Your task to perform on an android device: turn on bluetooth scan Image 0: 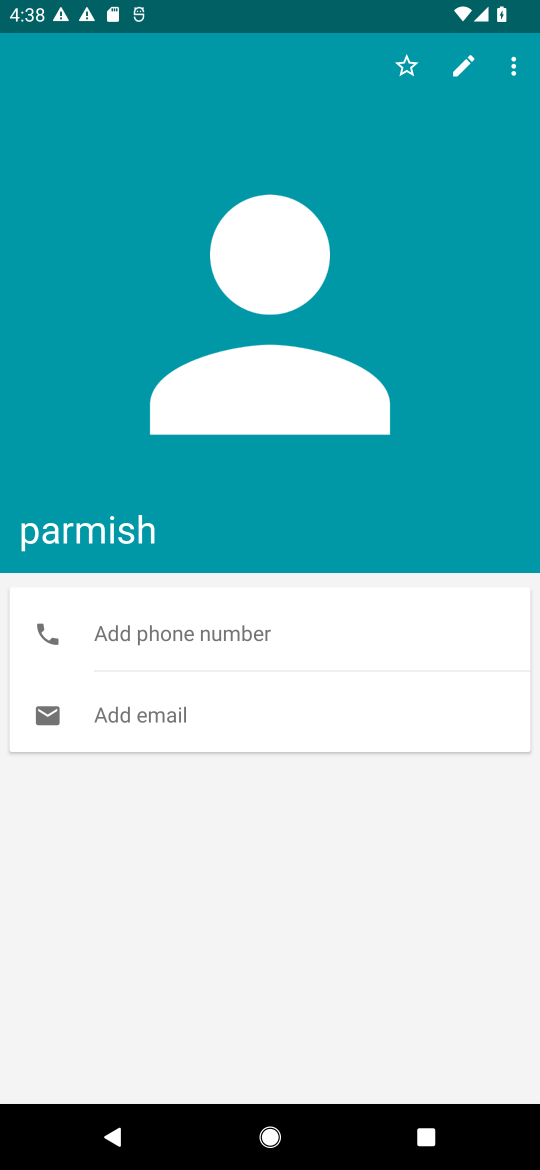
Step 0: press home button
Your task to perform on an android device: turn on bluetooth scan Image 1: 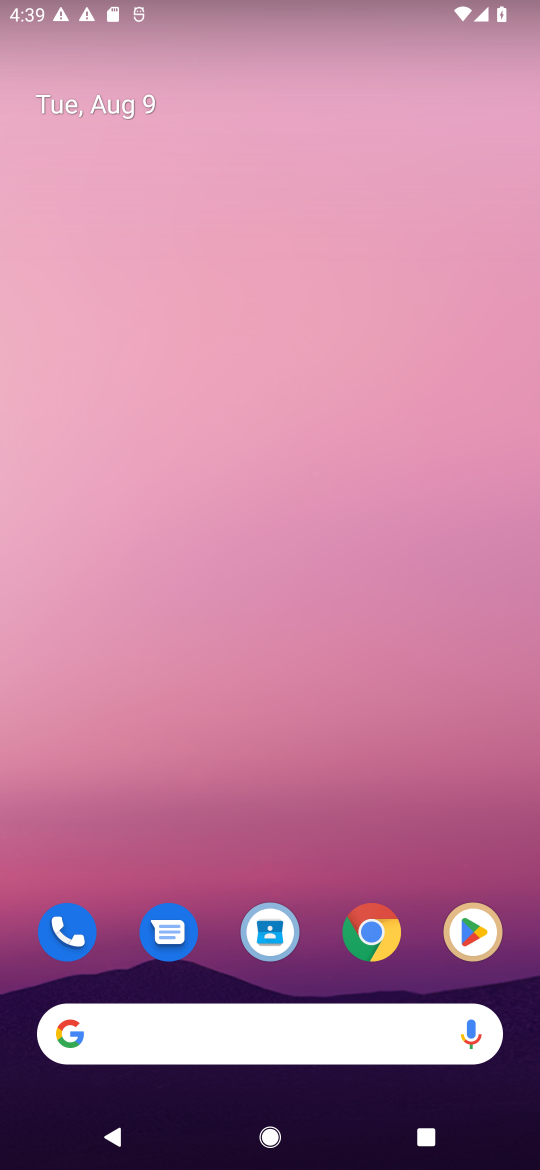
Step 1: drag from (186, 759) to (227, 57)
Your task to perform on an android device: turn on bluetooth scan Image 2: 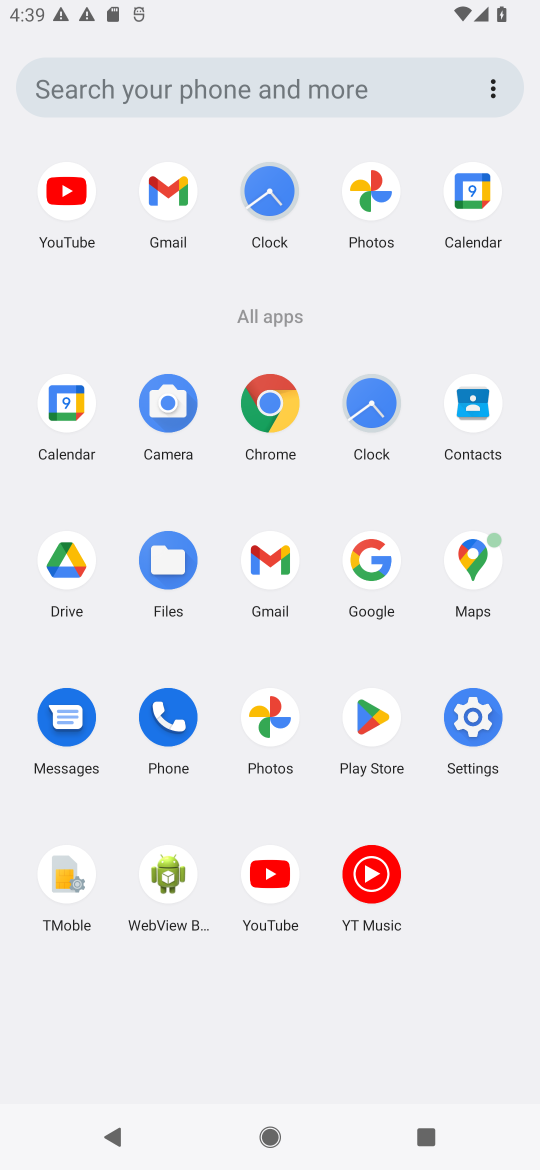
Step 2: click (474, 728)
Your task to perform on an android device: turn on bluetooth scan Image 3: 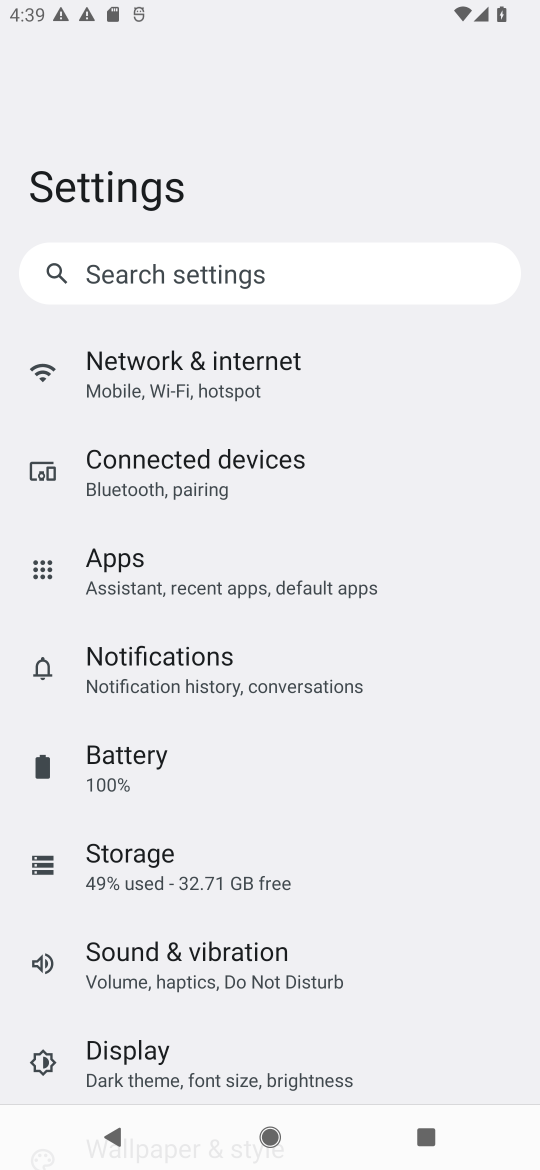
Step 3: drag from (195, 935) to (264, 89)
Your task to perform on an android device: turn on bluetooth scan Image 4: 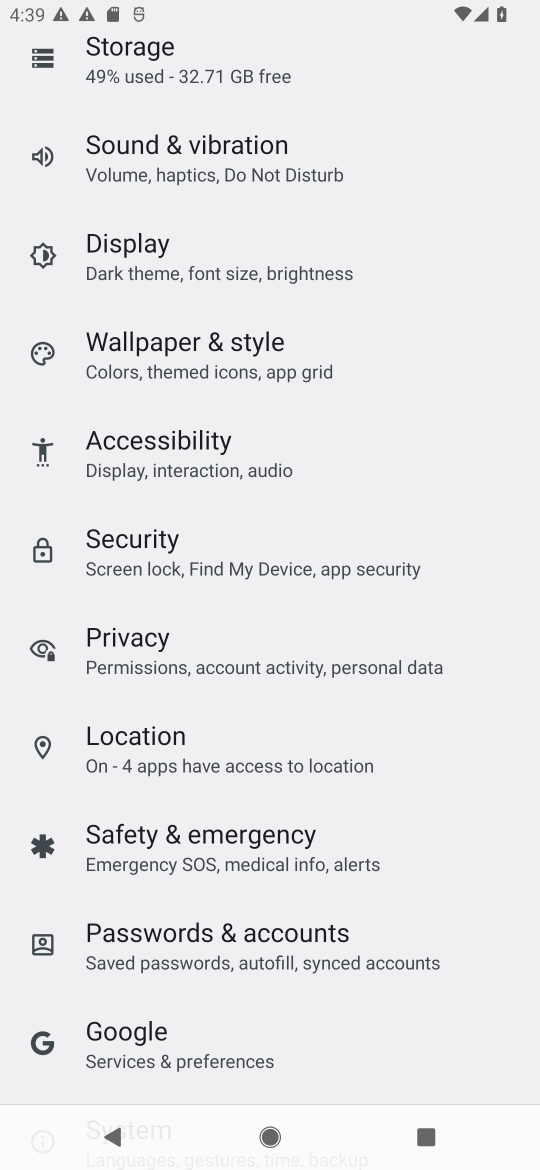
Step 4: drag from (255, 948) to (262, 382)
Your task to perform on an android device: turn on bluetooth scan Image 5: 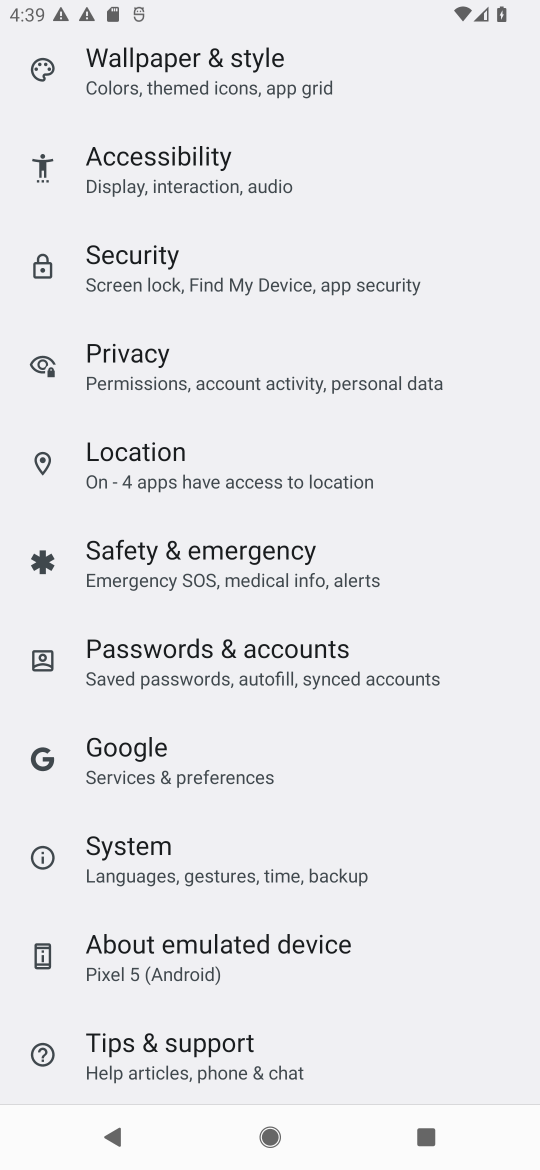
Step 5: click (188, 469)
Your task to perform on an android device: turn on bluetooth scan Image 6: 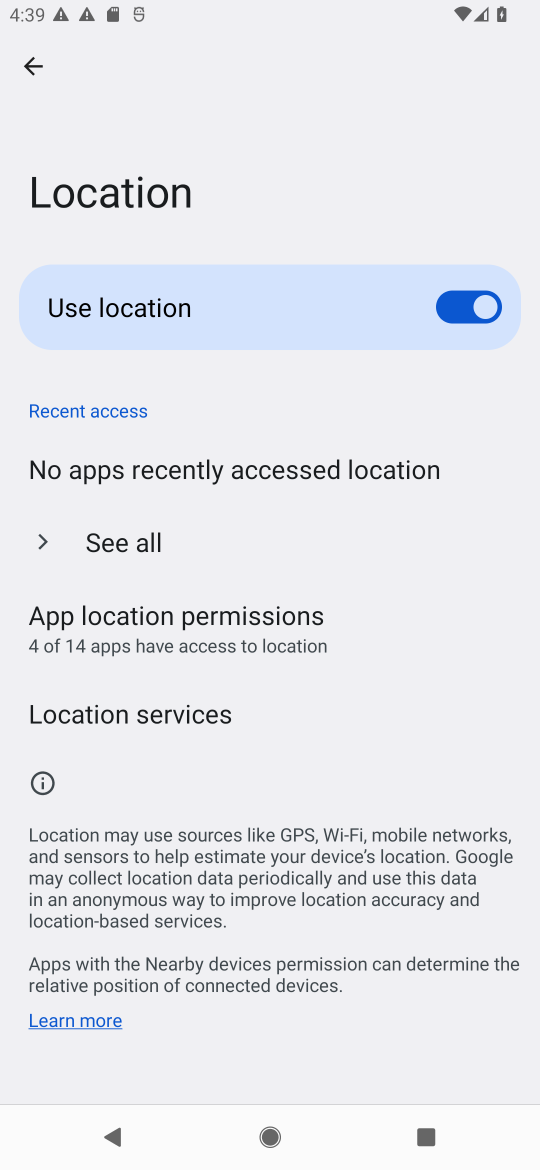
Step 6: click (186, 721)
Your task to perform on an android device: turn on bluetooth scan Image 7: 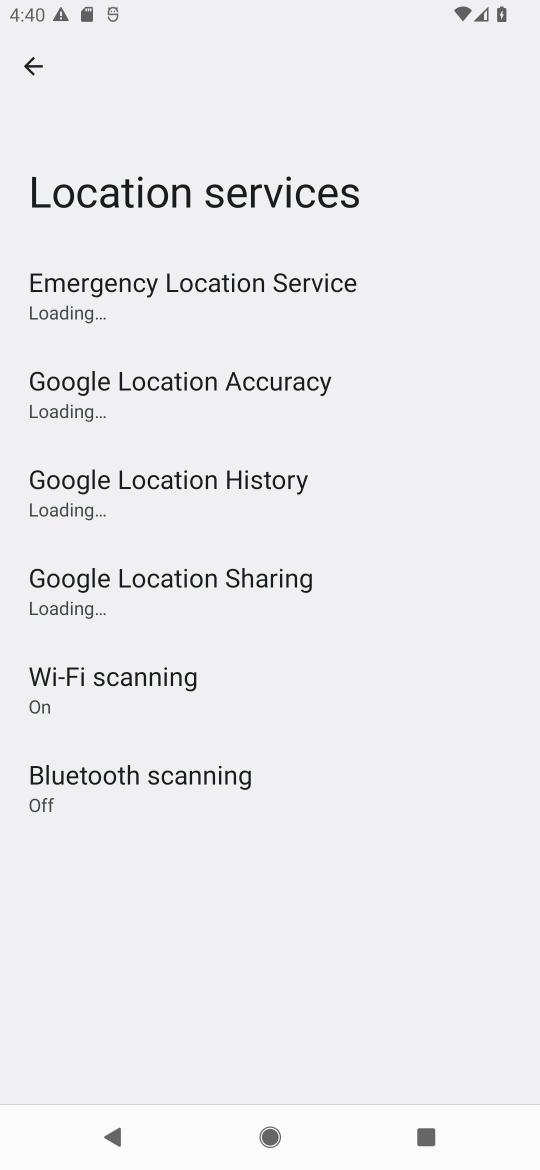
Step 7: click (184, 781)
Your task to perform on an android device: turn on bluetooth scan Image 8: 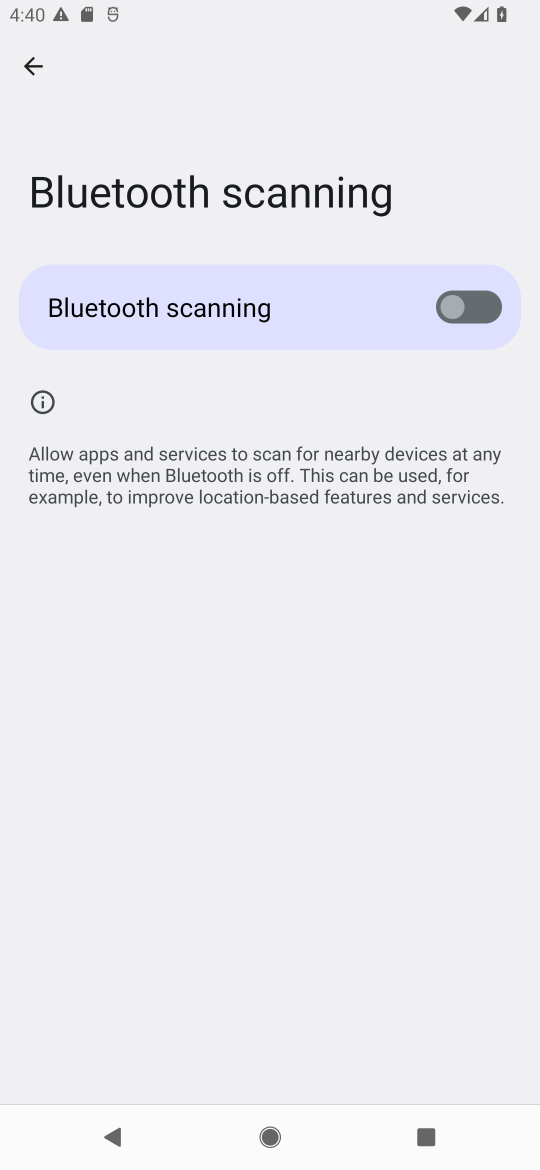
Step 8: click (420, 303)
Your task to perform on an android device: turn on bluetooth scan Image 9: 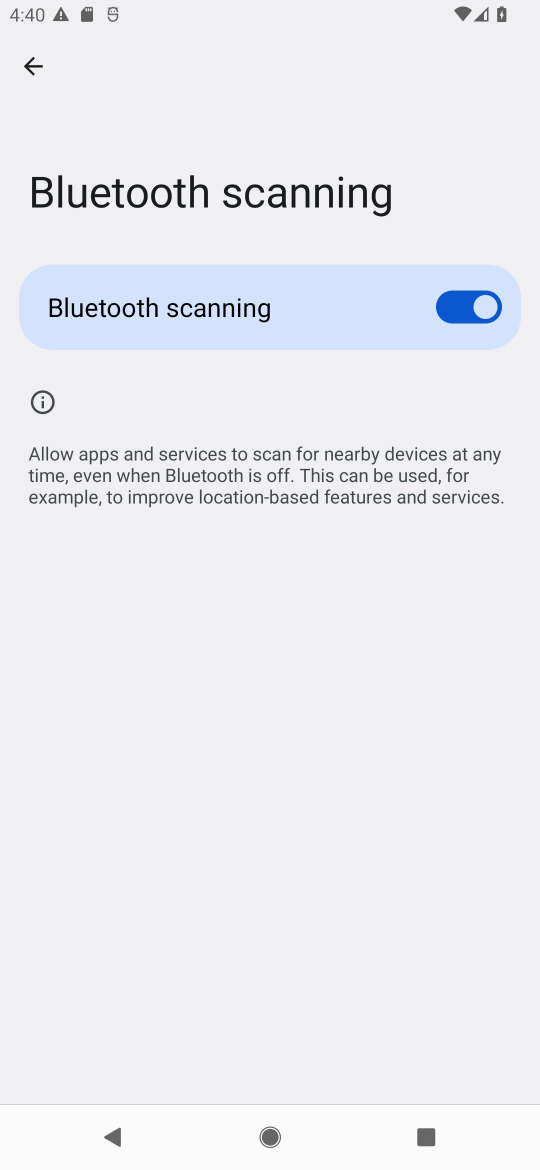
Step 9: task complete